Your task to perform on an android device: turn on wifi Image 0: 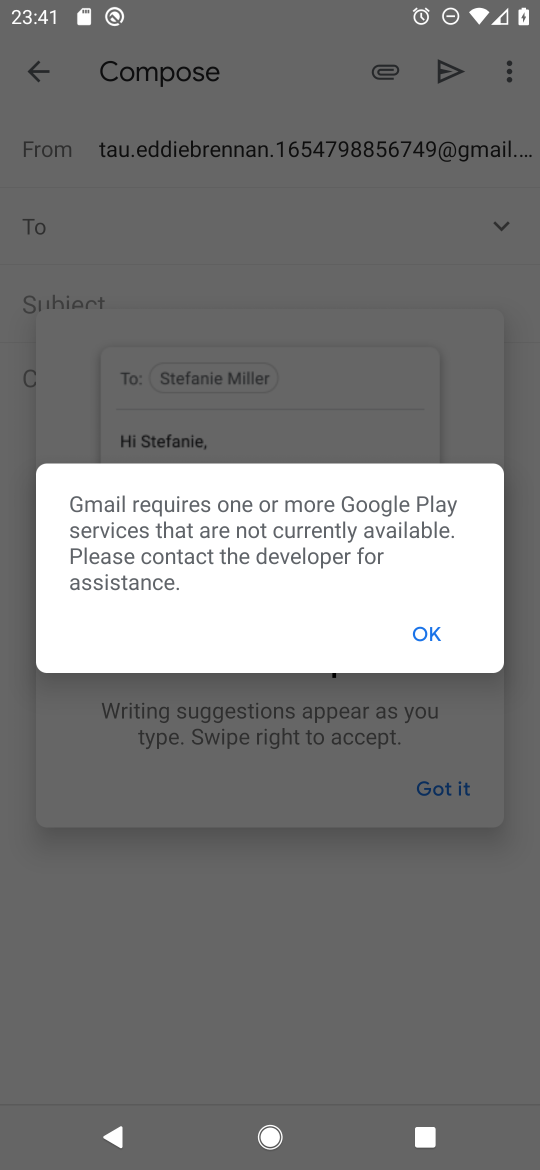
Step 0: press home button
Your task to perform on an android device: turn on wifi Image 1: 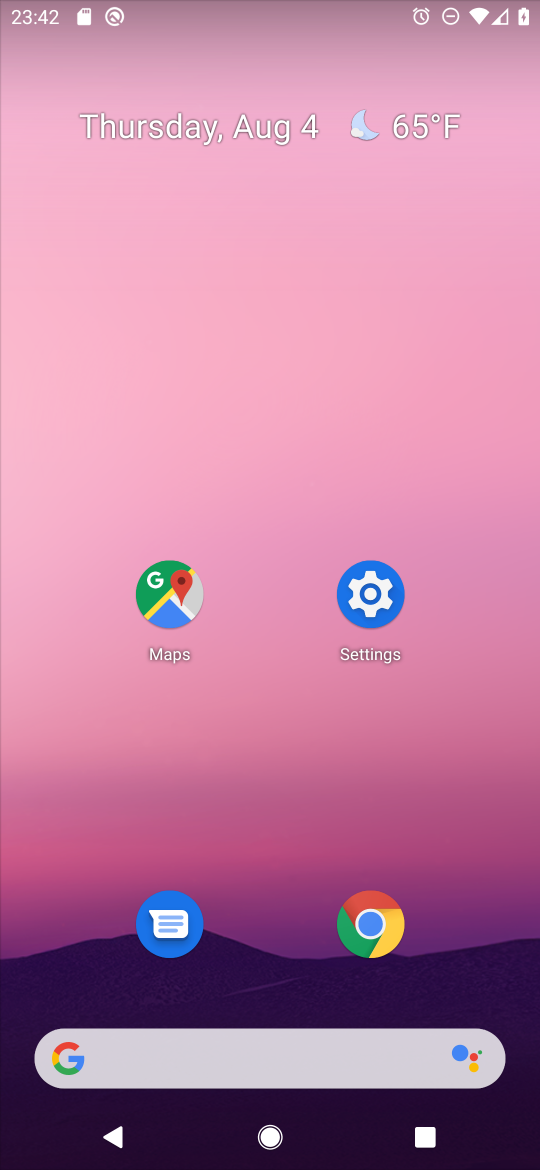
Step 1: click (371, 587)
Your task to perform on an android device: turn on wifi Image 2: 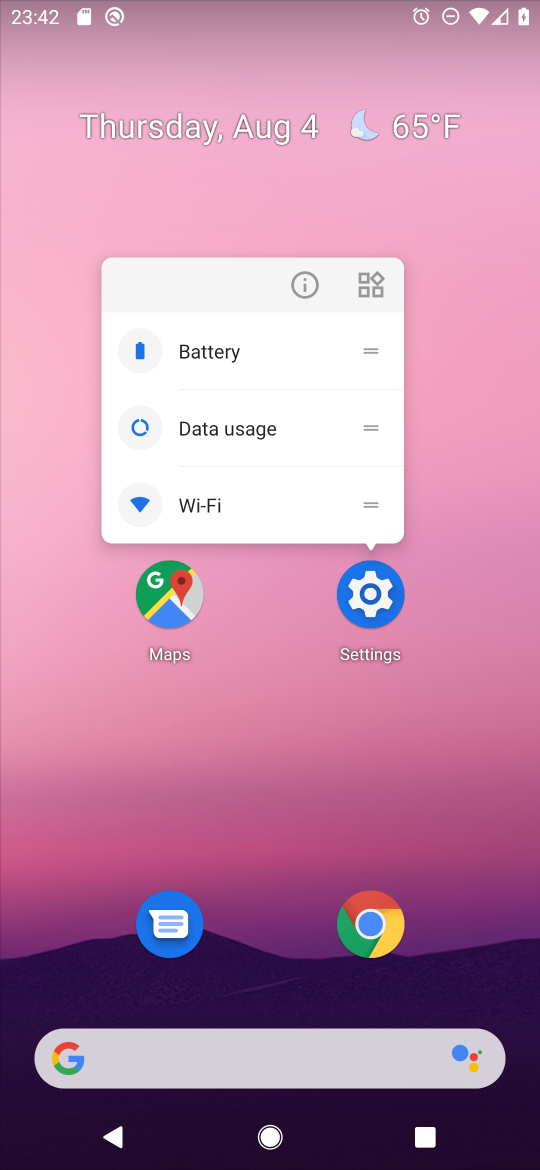
Step 2: click (371, 587)
Your task to perform on an android device: turn on wifi Image 3: 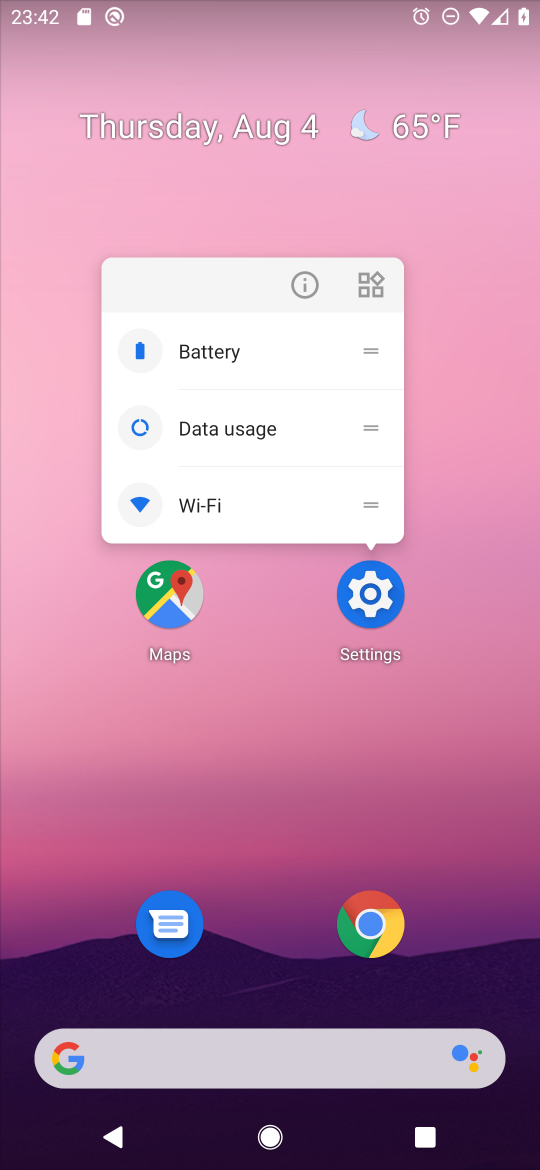
Step 3: click (372, 603)
Your task to perform on an android device: turn on wifi Image 4: 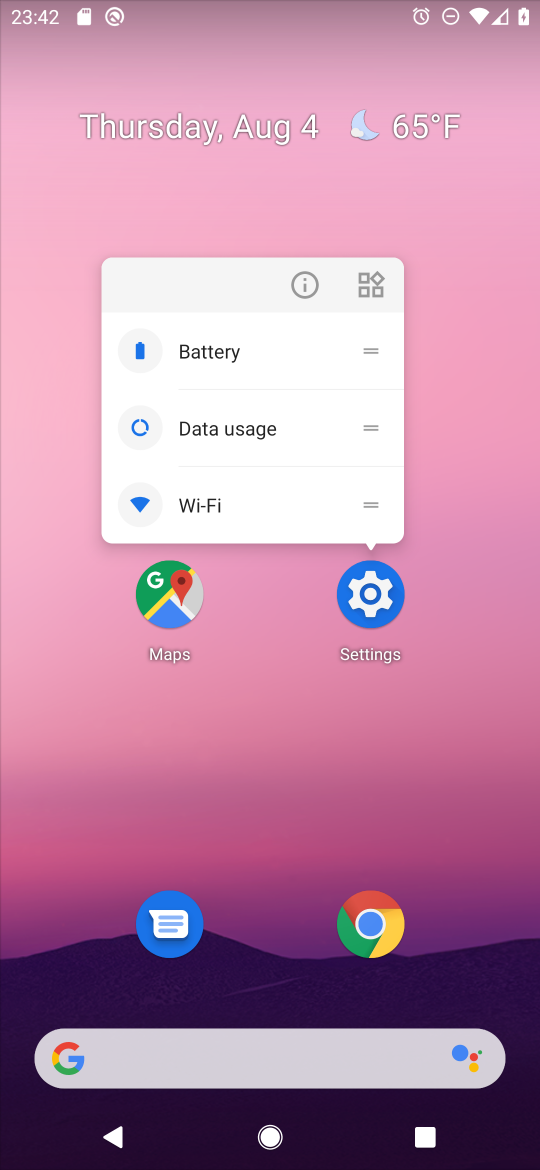
Step 4: click (372, 609)
Your task to perform on an android device: turn on wifi Image 5: 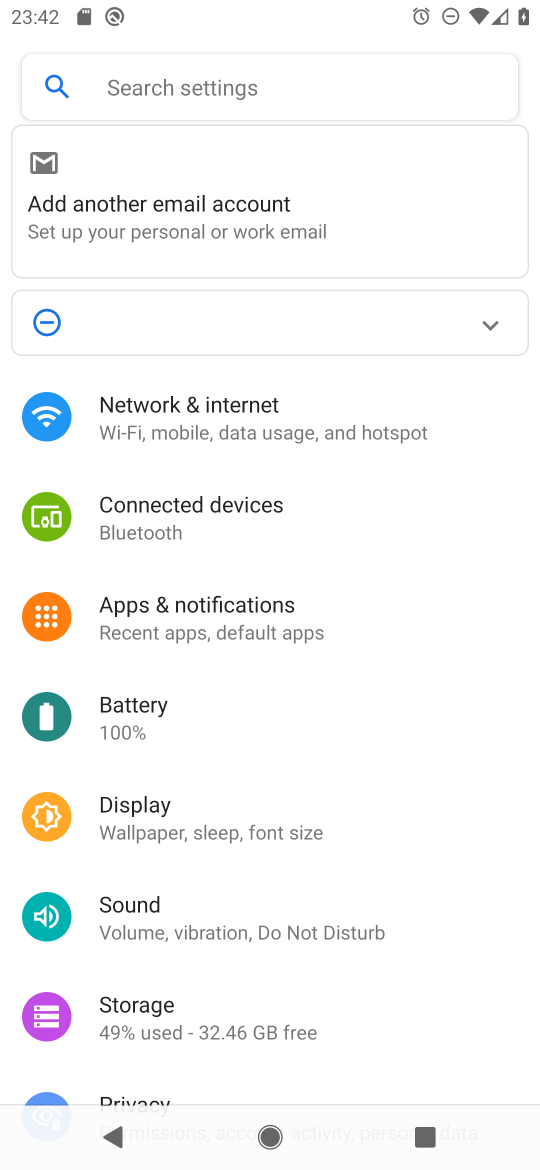
Step 5: click (282, 433)
Your task to perform on an android device: turn on wifi Image 6: 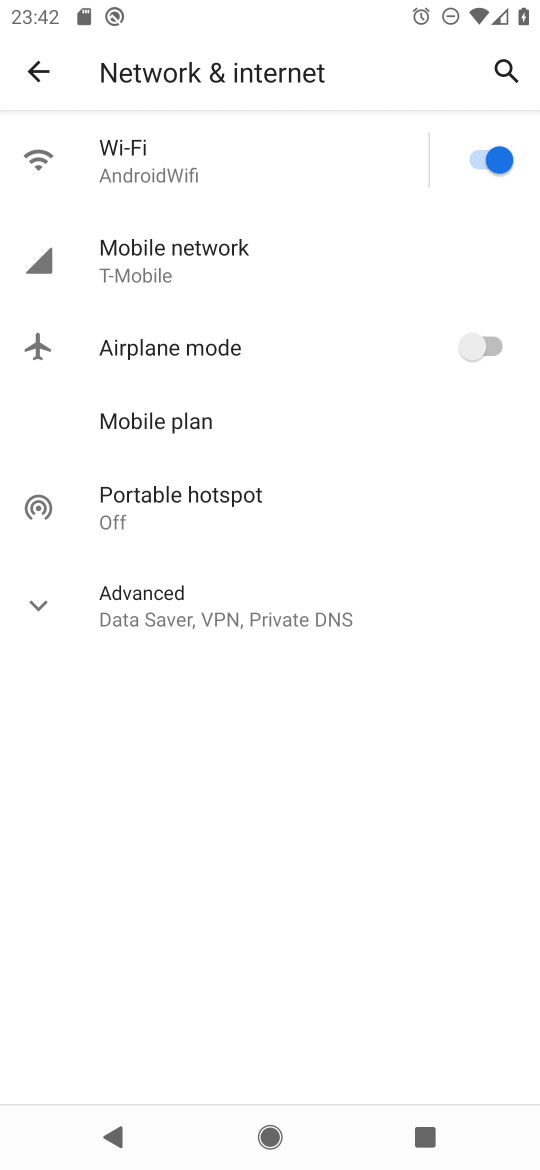
Step 6: task complete